Your task to perform on an android device: Set an alarmfor 5pm Image 0: 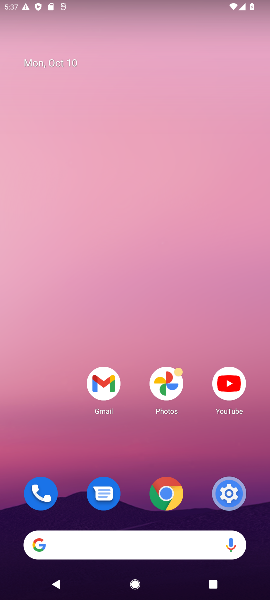
Step 0: drag from (124, 302) to (144, 70)
Your task to perform on an android device: Set an alarmfor 5pm Image 1: 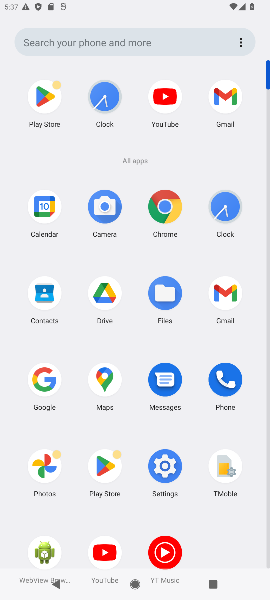
Step 1: click (99, 103)
Your task to perform on an android device: Set an alarmfor 5pm Image 2: 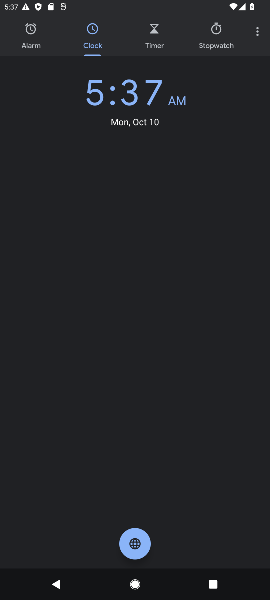
Step 2: click (39, 40)
Your task to perform on an android device: Set an alarmfor 5pm Image 3: 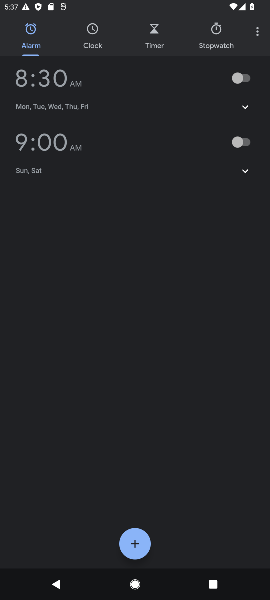
Step 3: click (138, 533)
Your task to perform on an android device: Set an alarmfor 5pm Image 4: 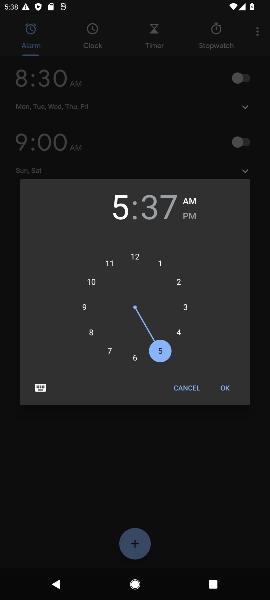
Step 4: click (137, 260)
Your task to perform on an android device: Set an alarmfor 5pm Image 5: 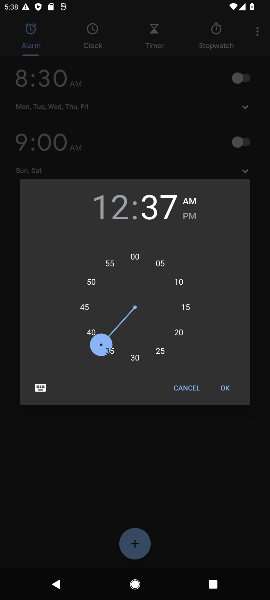
Step 5: click (181, 284)
Your task to perform on an android device: Set an alarmfor 5pm Image 6: 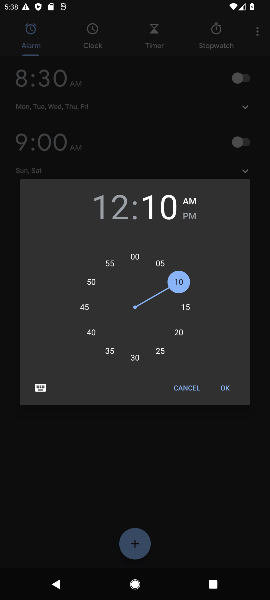
Step 6: click (119, 211)
Your task to perform on an android device: Set an alarmfor 5pm Image 7: 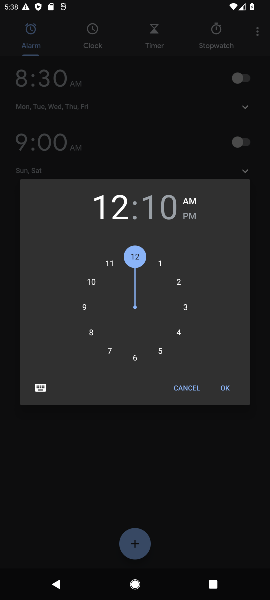
Step 7: click (119, 211)
Your task to perform on an android device: Set an alarmfor 5pm Image 8: 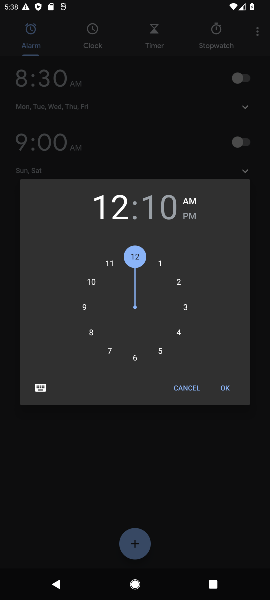
Step 8: click (160, 348)
Your task to perform on an android device: Set an alarmfor 5pm Image 9: 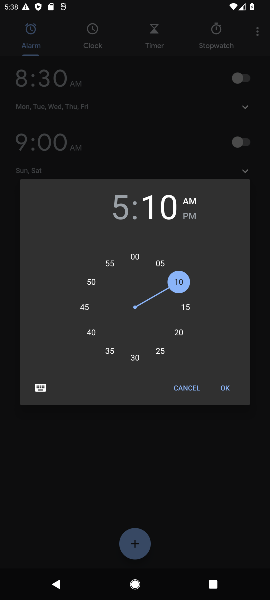
Step 9: click (140, 253)
Your task to perform on an android device: Set an alarmfor 5pm Image 10: 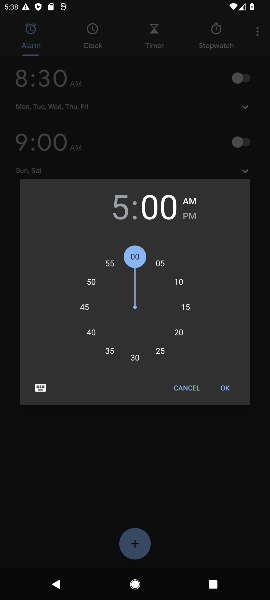
Step 10: click (195, 218)
Your task to perform on an android device: Set an alarmfor 5pm Image 11: 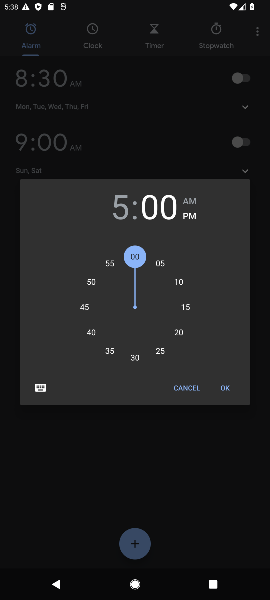
Step 11: click (225, 390)
Your task to perform on an android device: Set an alarmfor 5pm Image 12: 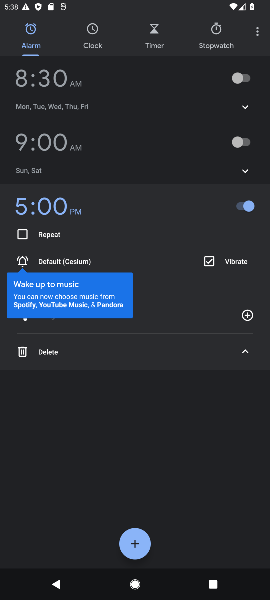
Step 12: task complete